Your task to perform on an android device: install app "Grab" Image 0: 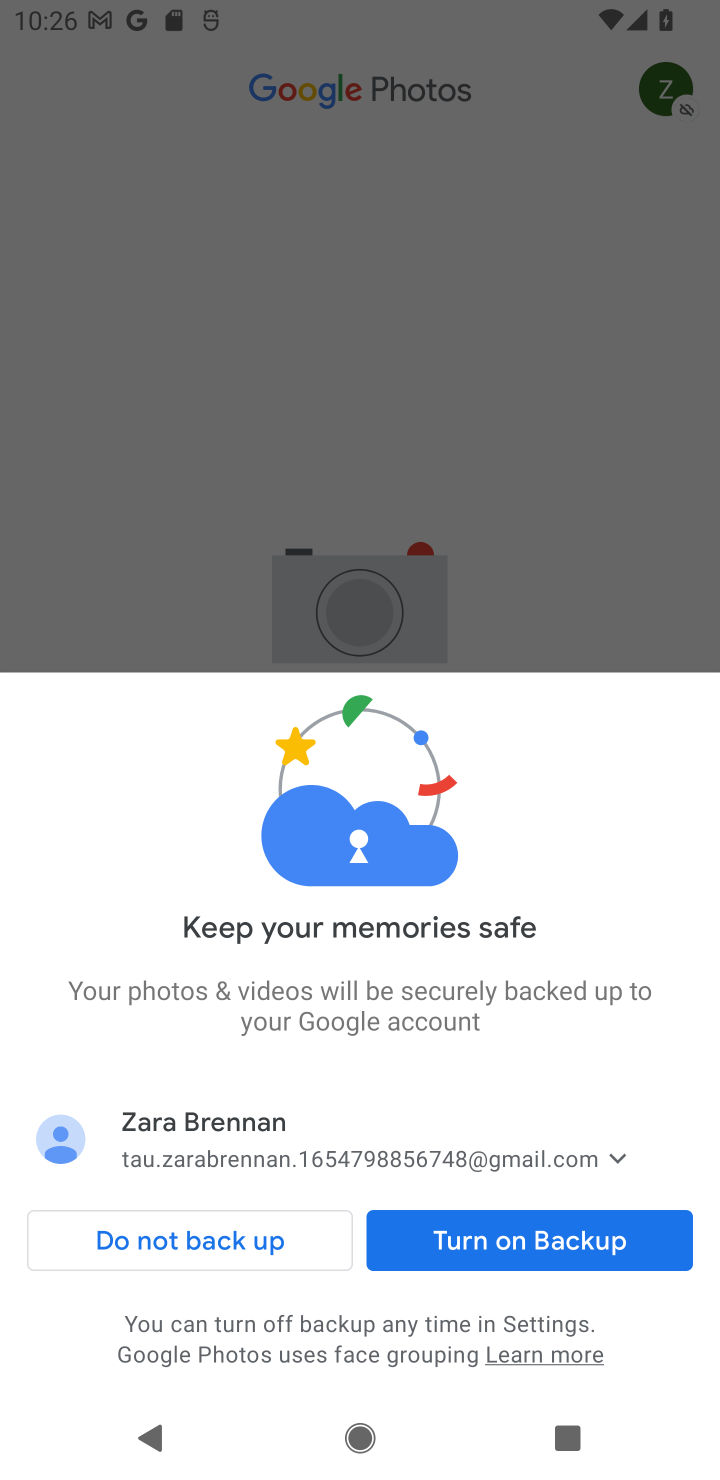
Step 0: press home button
Your task to perform on an android device: install app "Grab" Image 1: 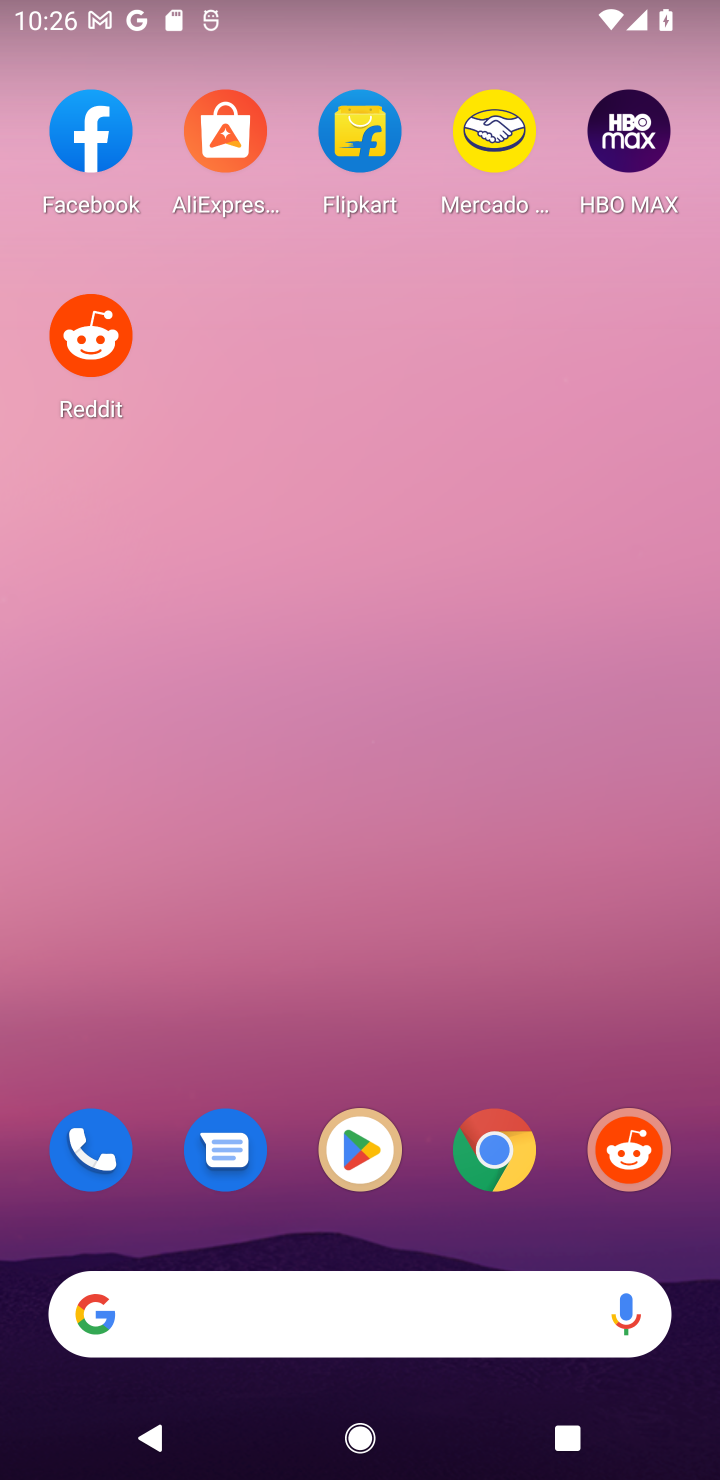
Step 1: click (379, 1140)
Your task to perform on an android device: install app "Grab" Image 2: 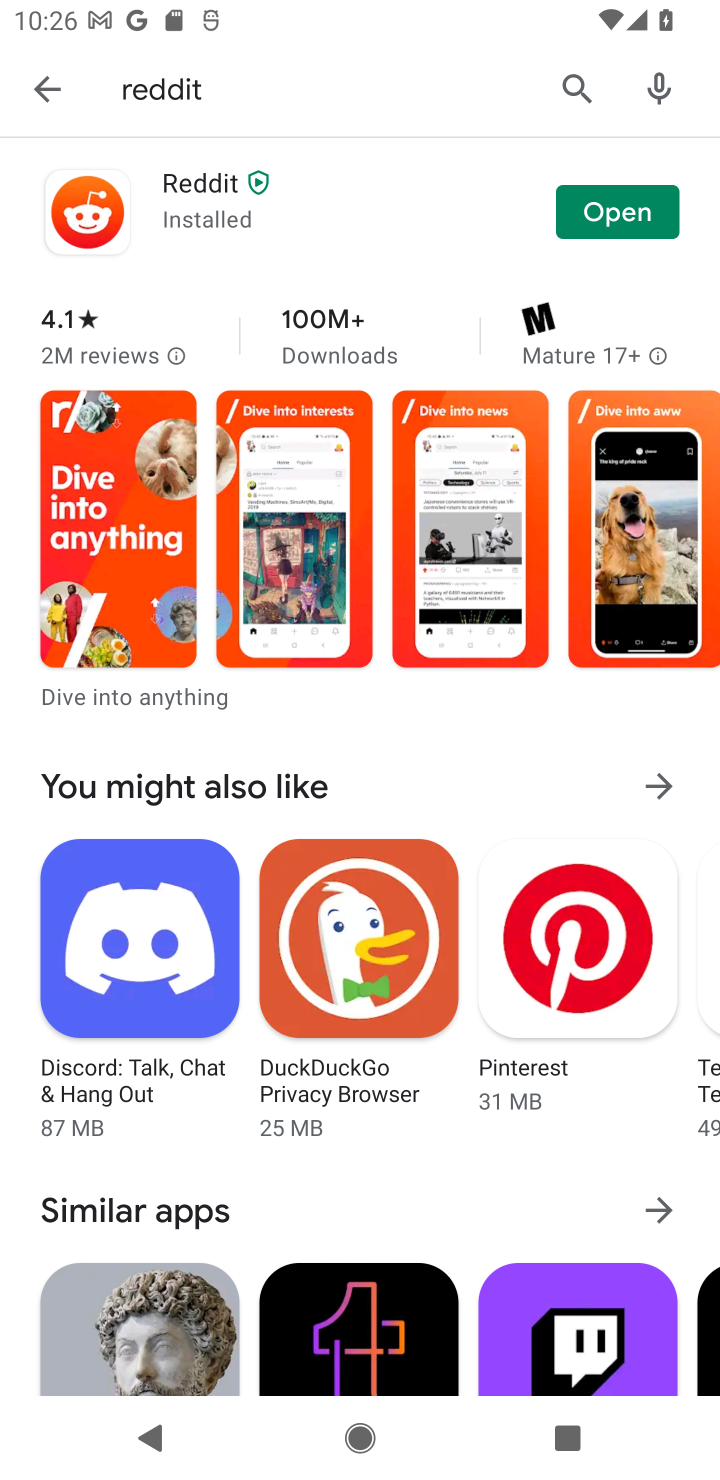
Step 2: click (565, 83)
Your task to perform on an android device: install app "Grab" Image 3: 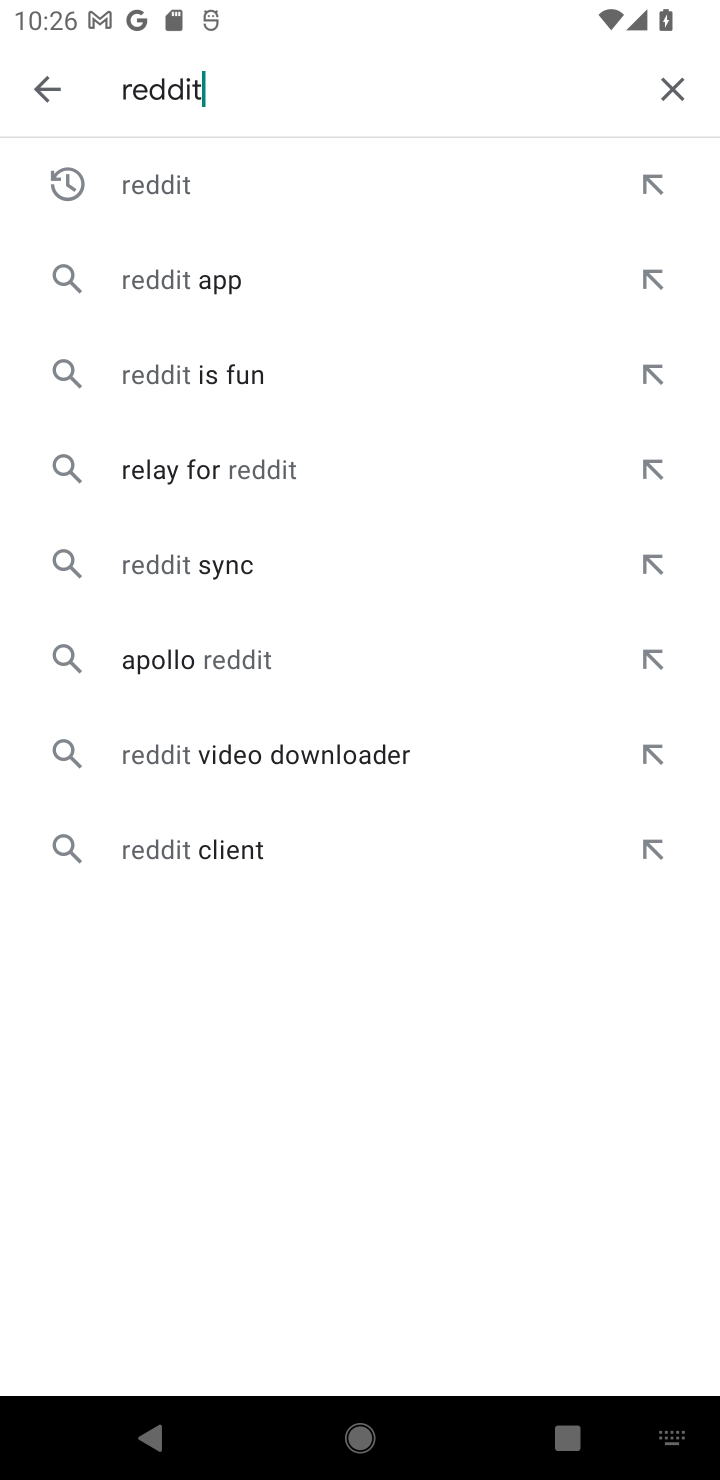
Step 3: click (659, 81)
Your task to perform on an android device: install app "Grab" Image 4: 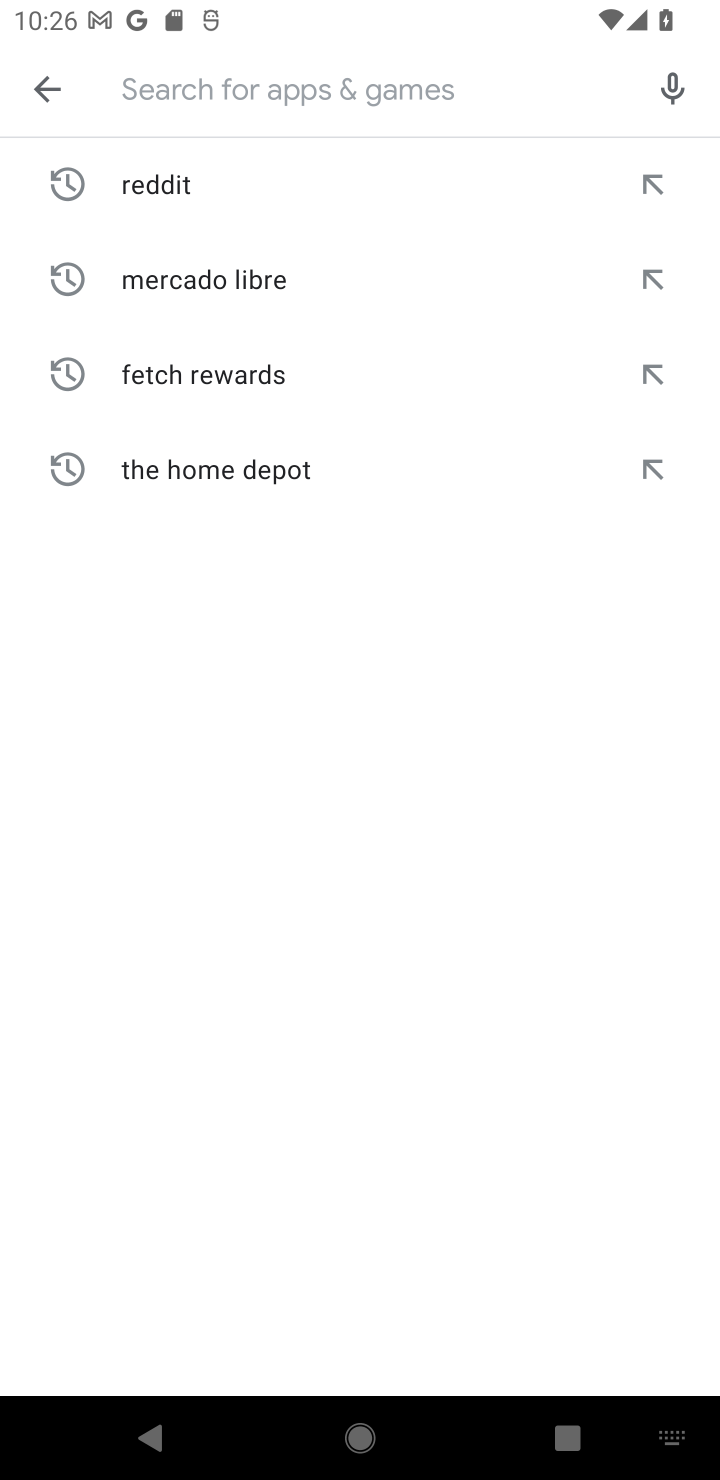
Step 4: type "Grab"
Your task to perform on an android device: install app "Grab" Image 5: 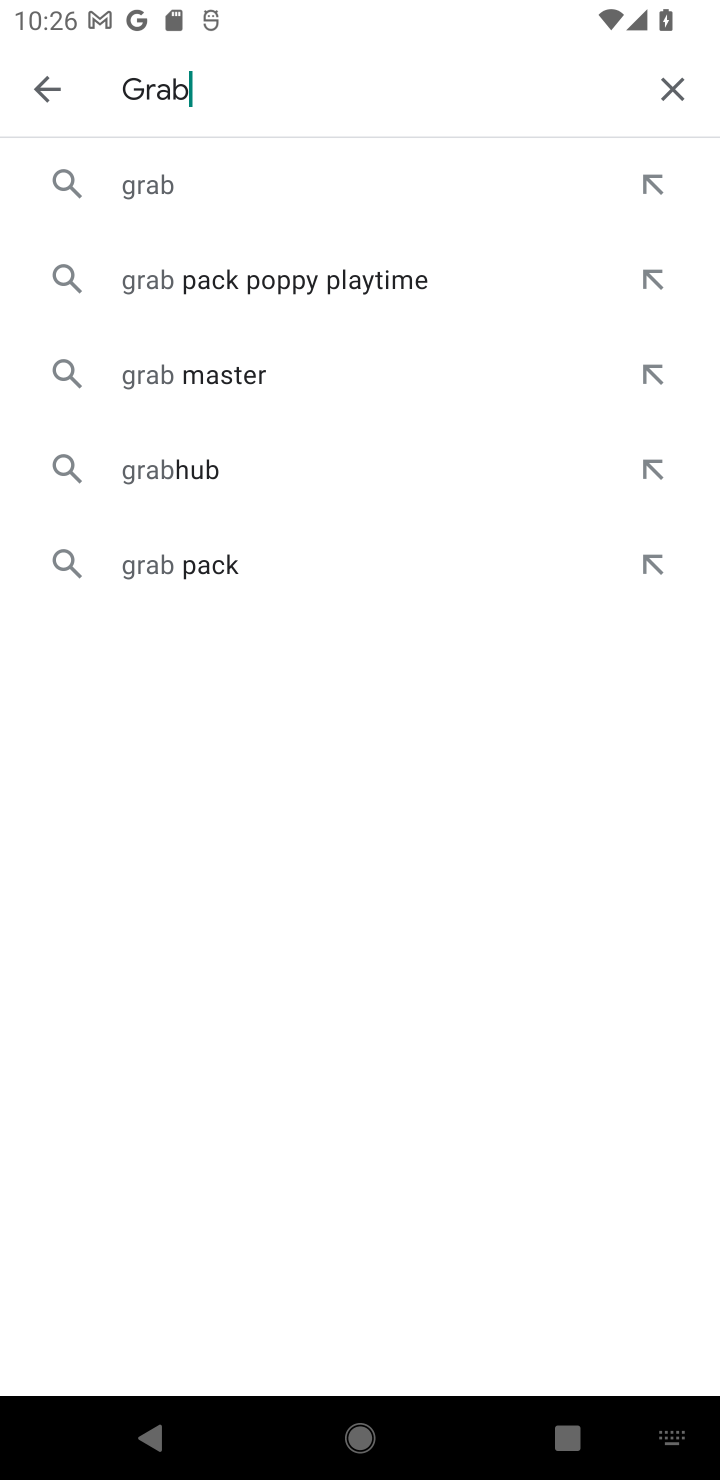
Step 5: click (166, 170)
Your task to perform on an android device: install app "Grab" Image 6: 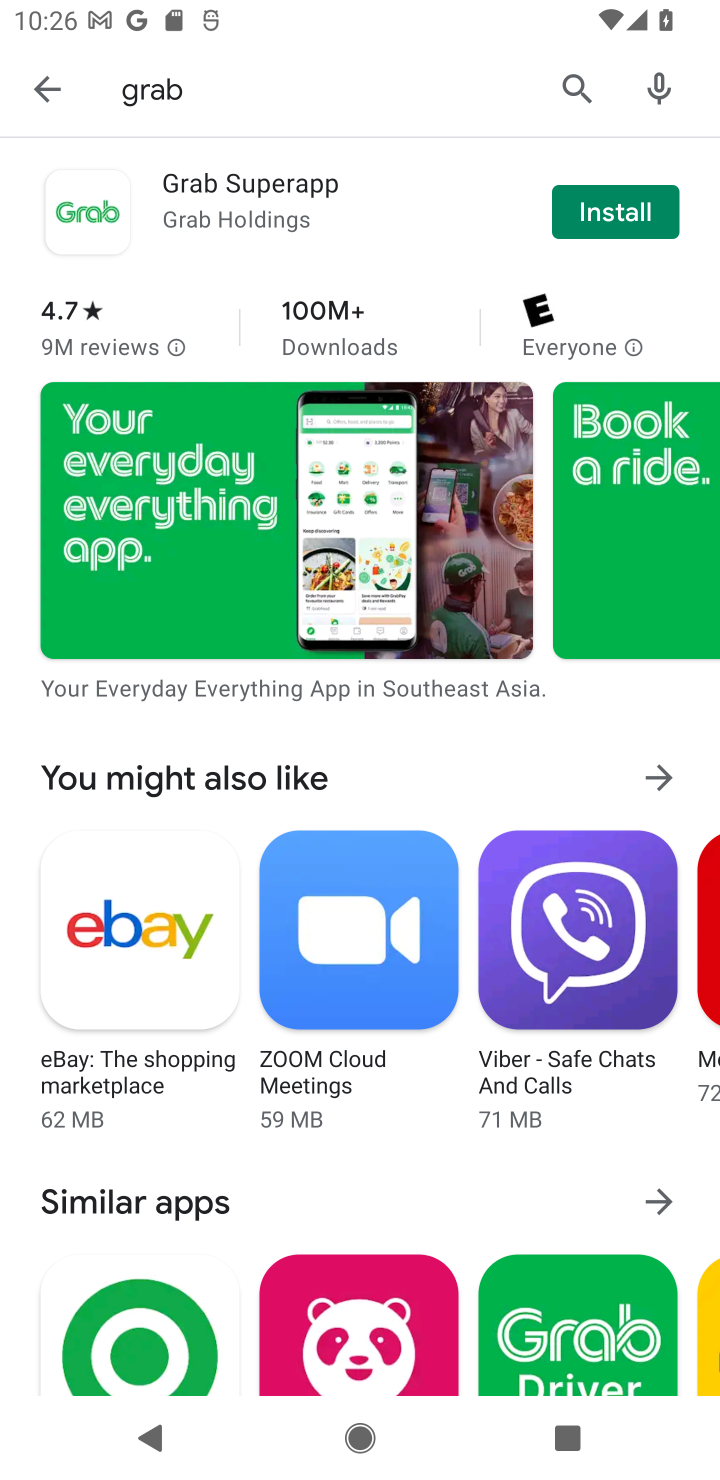
Step 6: click (636, 219)
Your task to perform on an android device: install app "Grab" Image 7: 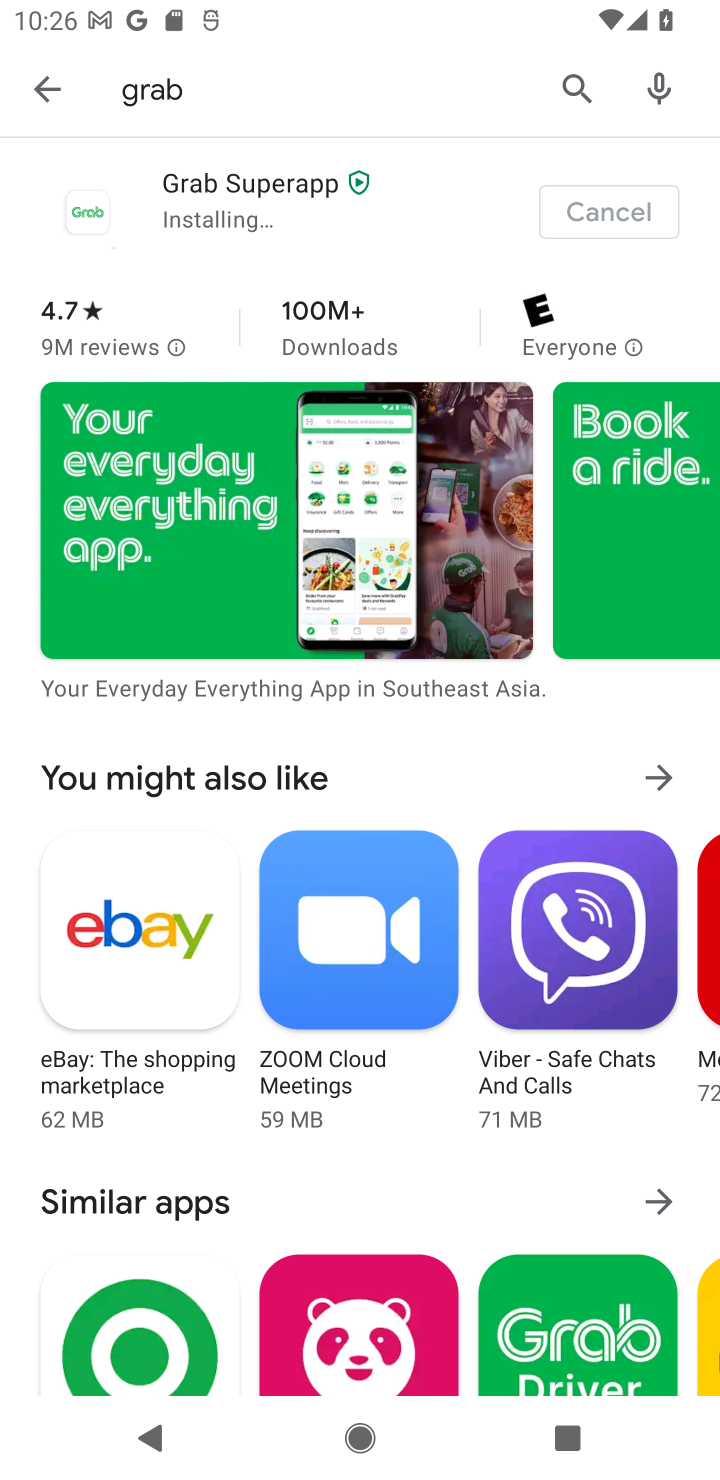
Step 7: task complete